Your task to perform on an android device: Do I have any events this weekend? Image 0: 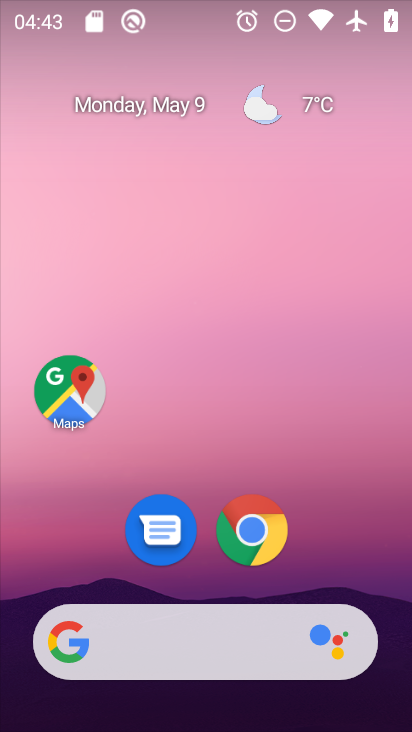
Step 0: drag from (204, 577) to (232, 138)
Your task to perform on an android device: Do I have any events this weekend? Image 1: 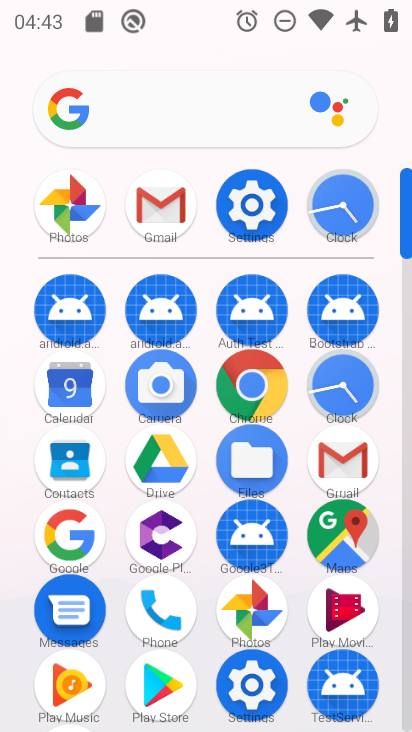
Step 1: click (65, 382)
Your task to perform on an android device: Do I have any events this weekend? Image 2: 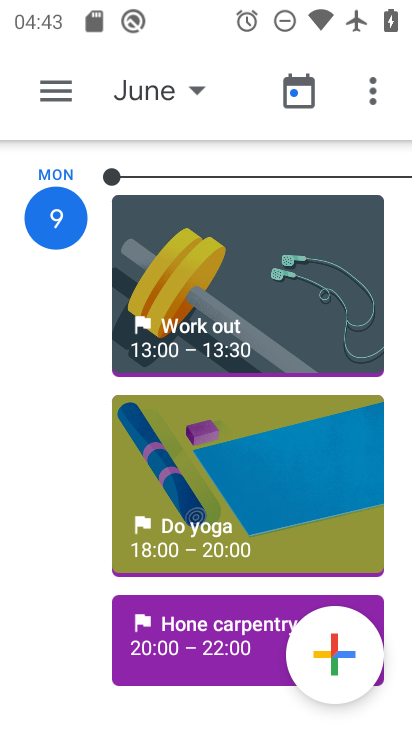
Step 2: click (179, 92)
Your task to perform on an android device: Do I have any events this weekend? Image 3: 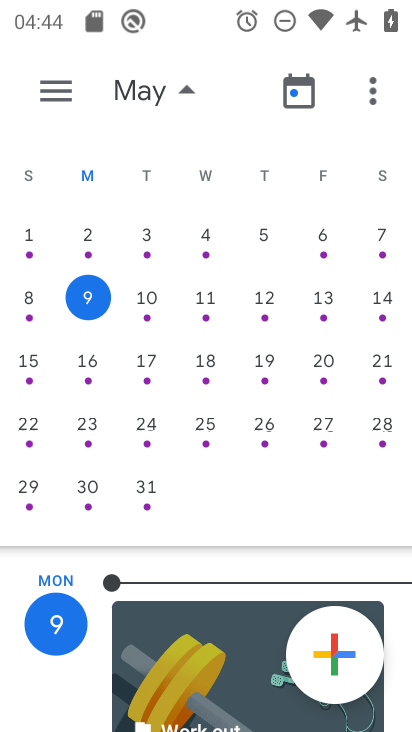
Step 3: click (92, 299)
Your task to perform on an android device: Do I have any events this weekend? Image 4: 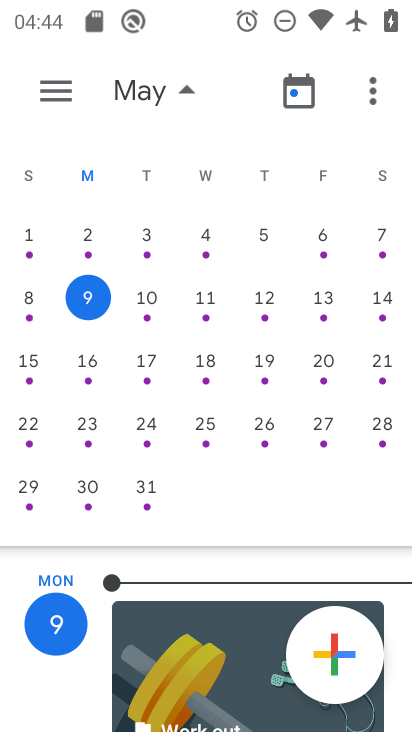
Step 4: drag from (87, 471) to (95, 214)
Your task to perform on an android device: Do I have any events this weekend? Image 5: 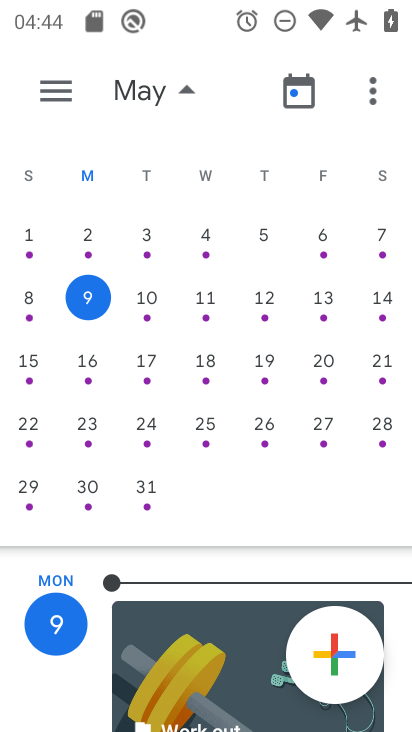
Step 5: drag from (66, 661) to (101, 139)
Your task to perform on an android device: Do I have any events this weekend? Image 6: 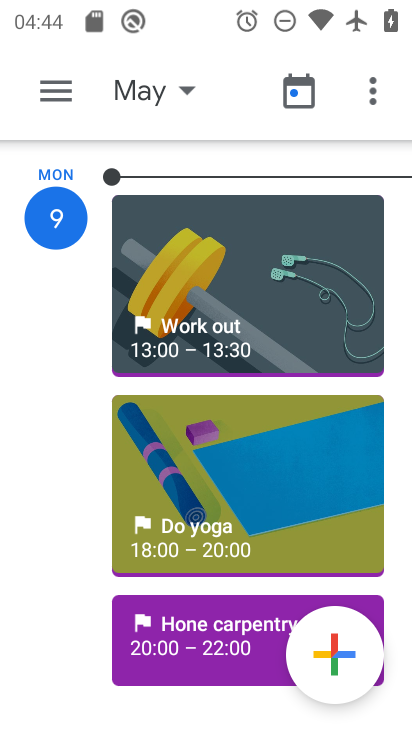
Step 6: drag from (56, 511) to (91, 89)
Your task to perform on an android device: Do I have any events this weekend? Image 7: 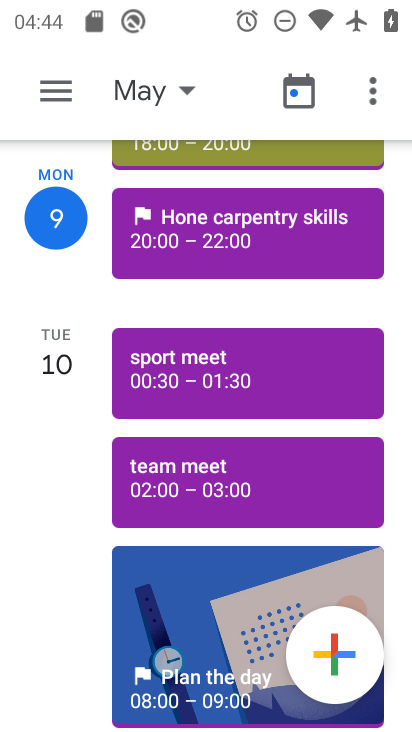
Step 7: drag from (78, 596) to (112, 75)
Your task to perform on an android device: Do I have any events this weekend? Image 8: 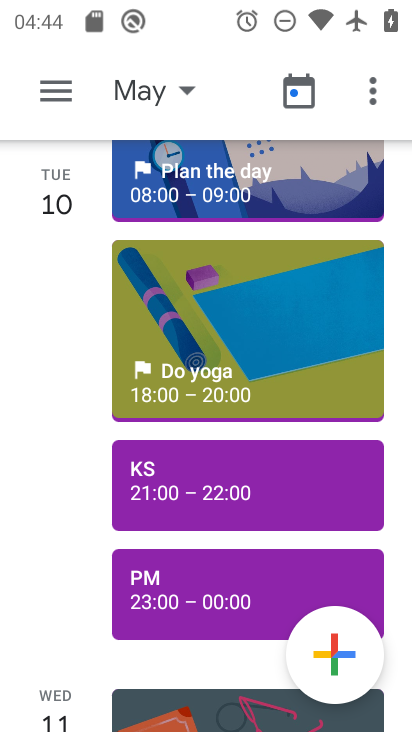
Step 8: drag from (53, 636) to (74, 101)
Your task to perform on an android device: Do I have any events this weekend? Image 9: 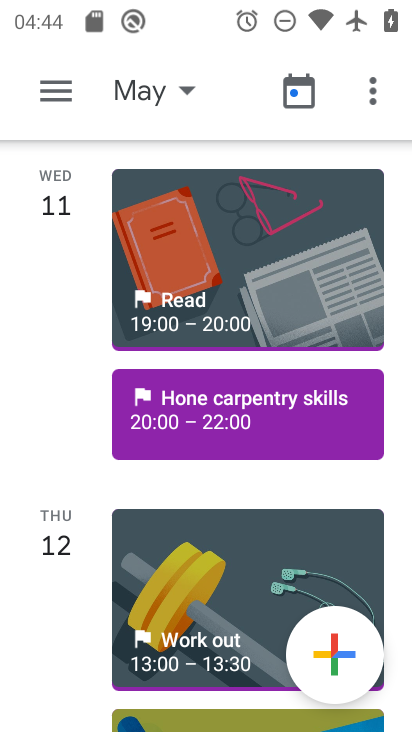
Step 9: drag from (51, 518) to (81, 95)
Your task to perform on an android device: Do I have any events this weekend? Image 10: 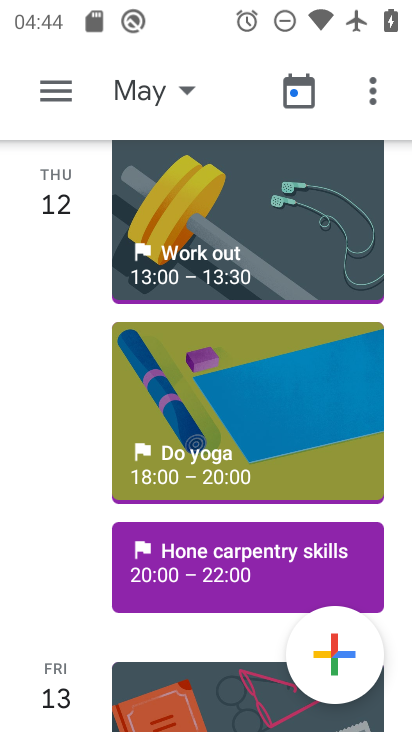
Step 10: drag from (60, 584) to (79, 252)
Your task to perform on an android device: Do I have any events this weekend? Image 11: 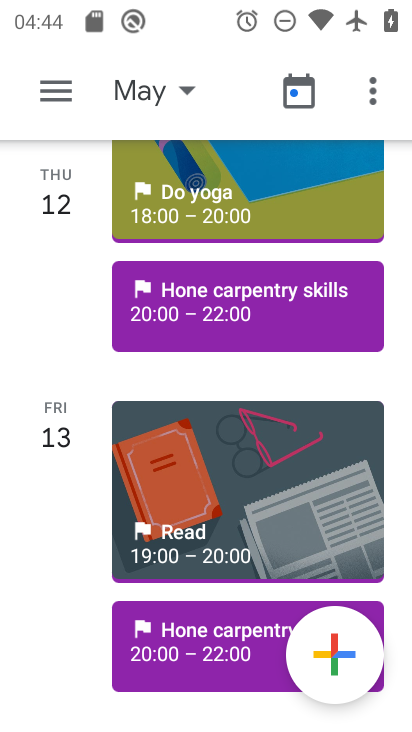
Step 11: click (94, 73)
Your task to perform on an android device: Do I have any events this weekend? Image 12: 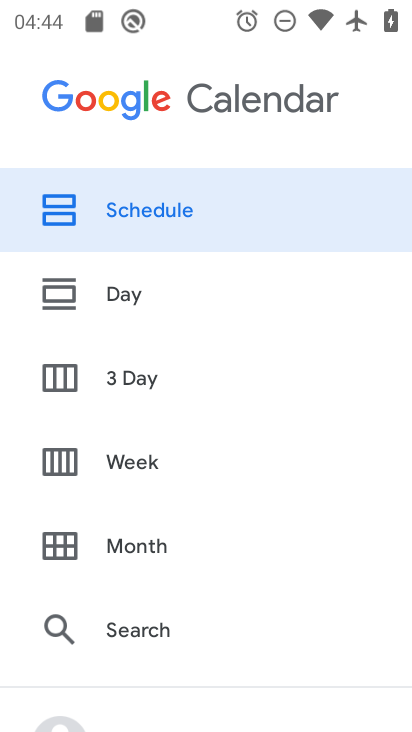
Step 12: drag from (49, 571) to (61, 458)
Your task to perform on an android device: Do I have any events this weekend? Image 13: 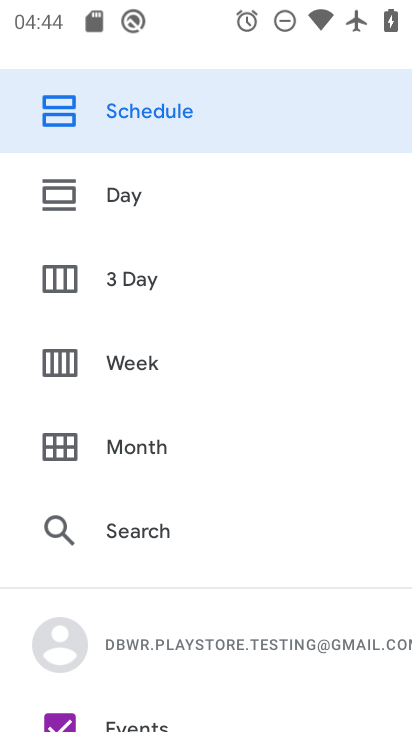
Step 13: drag from (90, 280) to (99, 182)
Your task to perform on an android device: Do I have any events this weekend? Image 14: 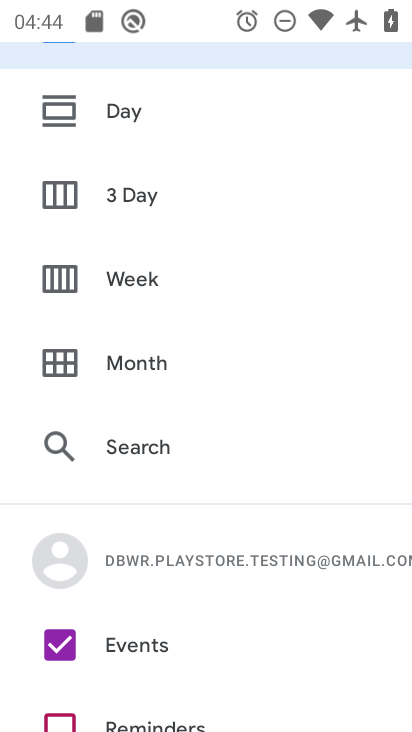
Step 14: drag from (74, 208) to (74, 639)
Your task to perform on an android device: Do I have any events this weekend? Image 15: 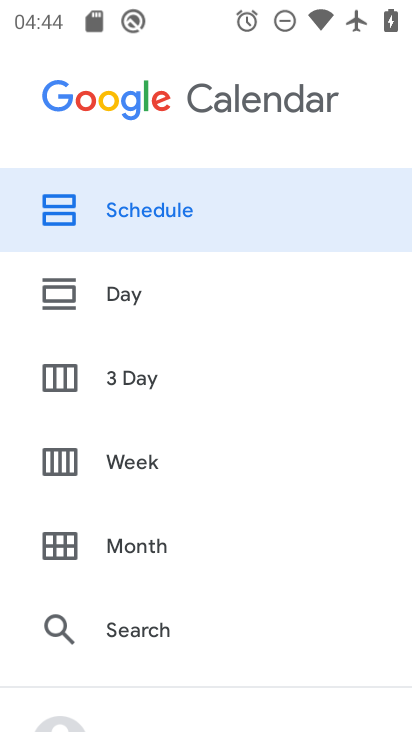
Step 15: click (196, 203)
Your task to perform on an android device: Do I have any events this weekend? Image 16: 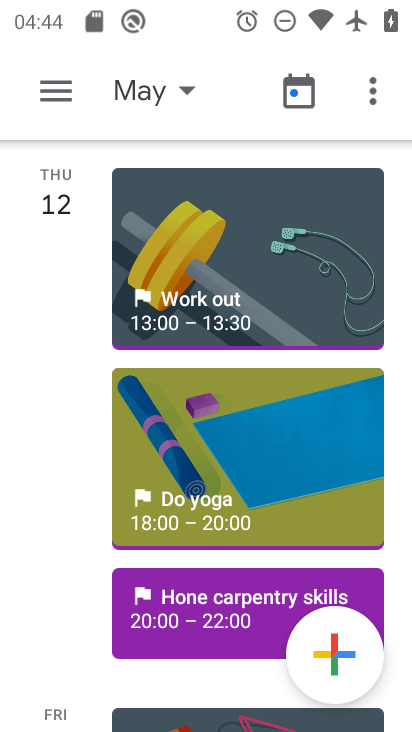
Step 16: drag from (62, 542) to (97, 174)
Your task to perform on an android device: Do I have any events this weekend? Image 17: 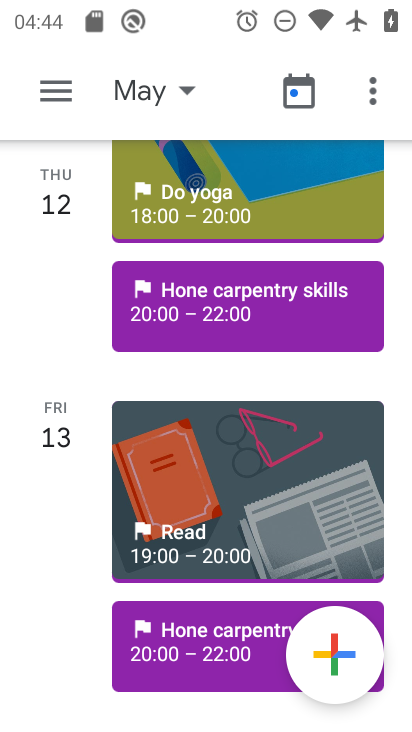
Step 17: click (106, 85)
Your task to perform on an android device: Do I have any events this weekend? Image 18: 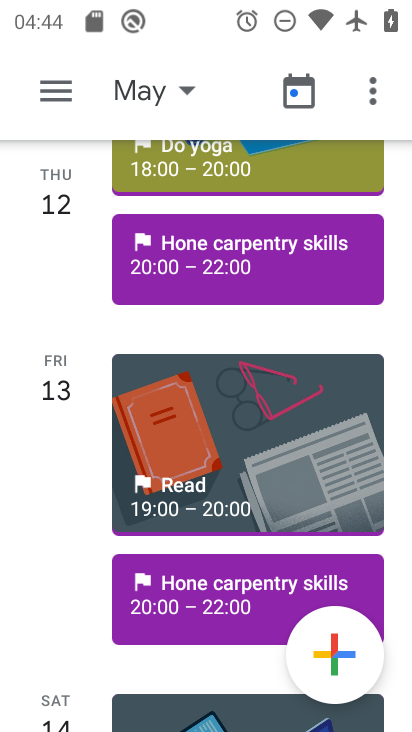
Step 18: task complete